Your task to perform on an android device: Go to settings Image 0: 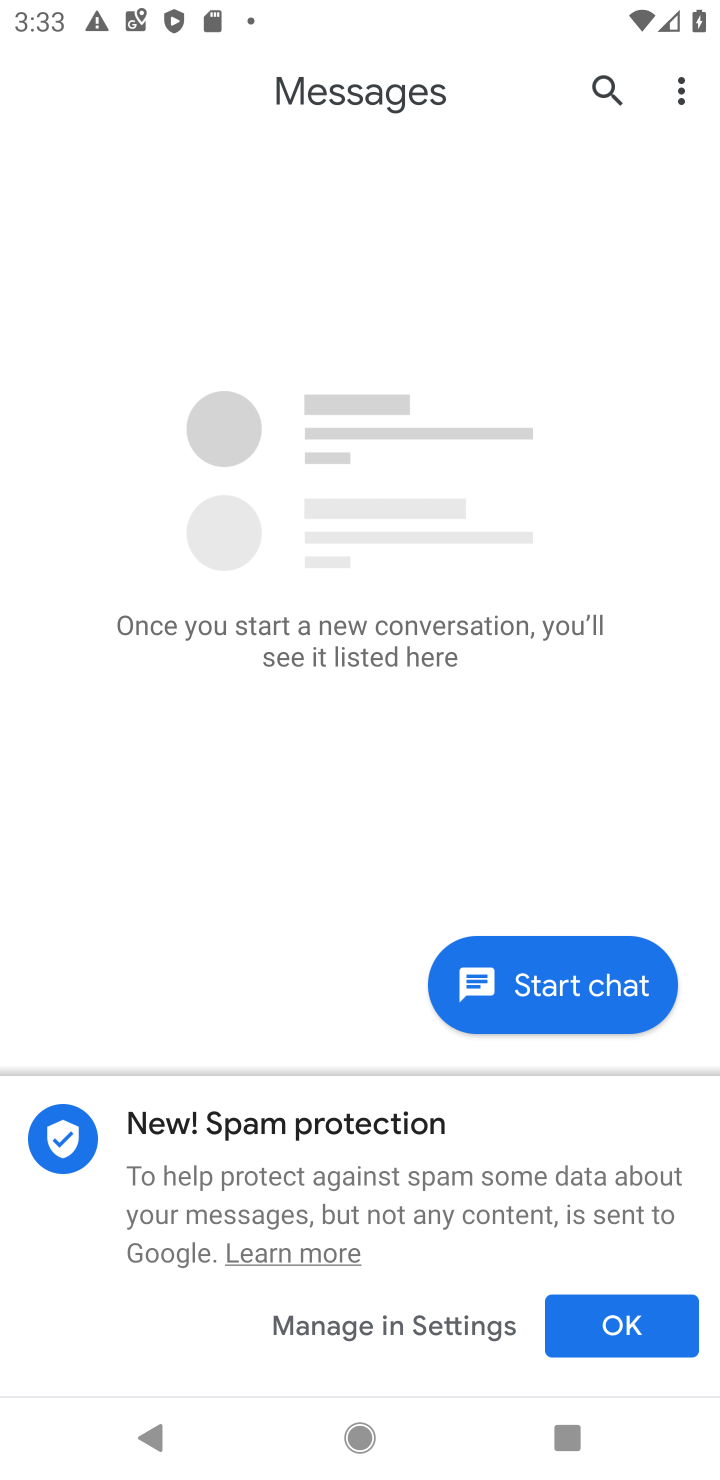
Step 0: press home button
Your task to perform on an android device: Go to settings Image 1: 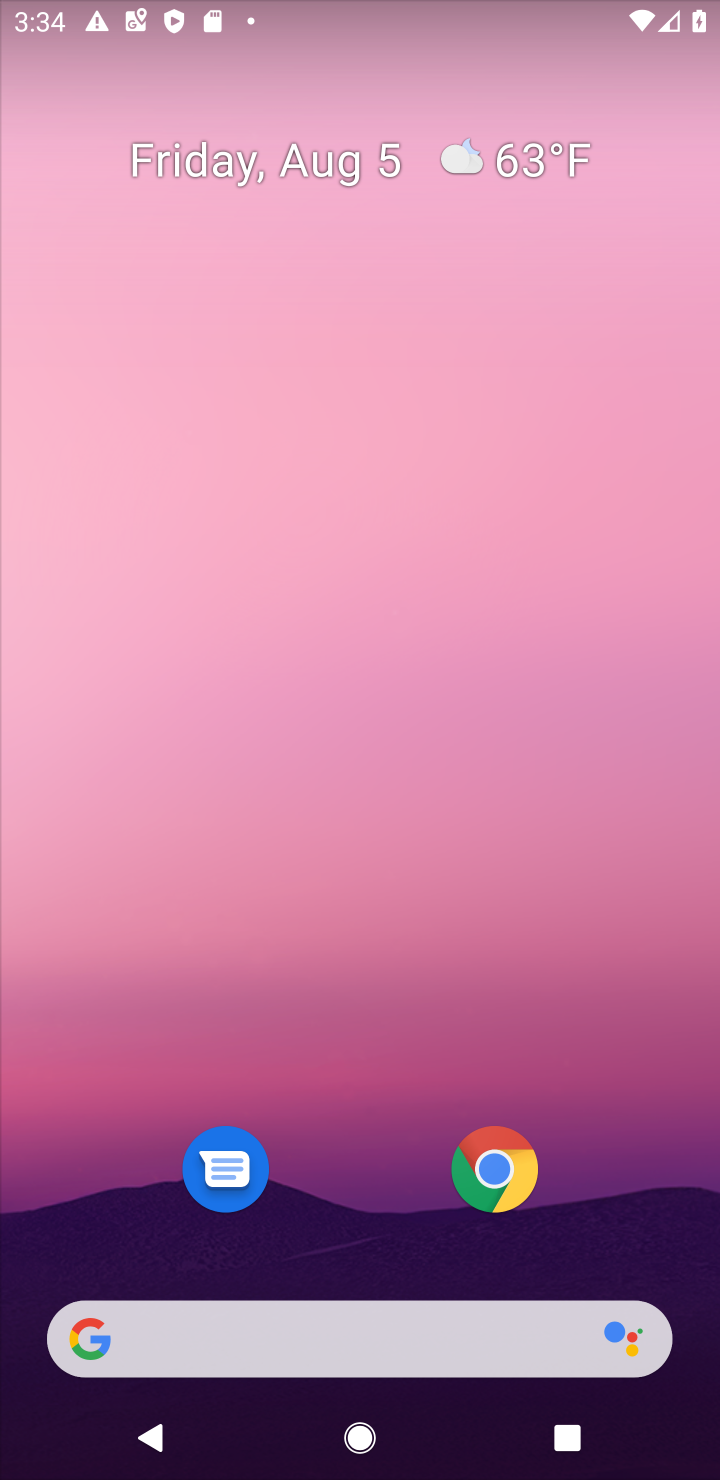
Step 1: drag from (699, 1410) to (362, 58)
Your task to perform on an android device: Go to settings Image 2: 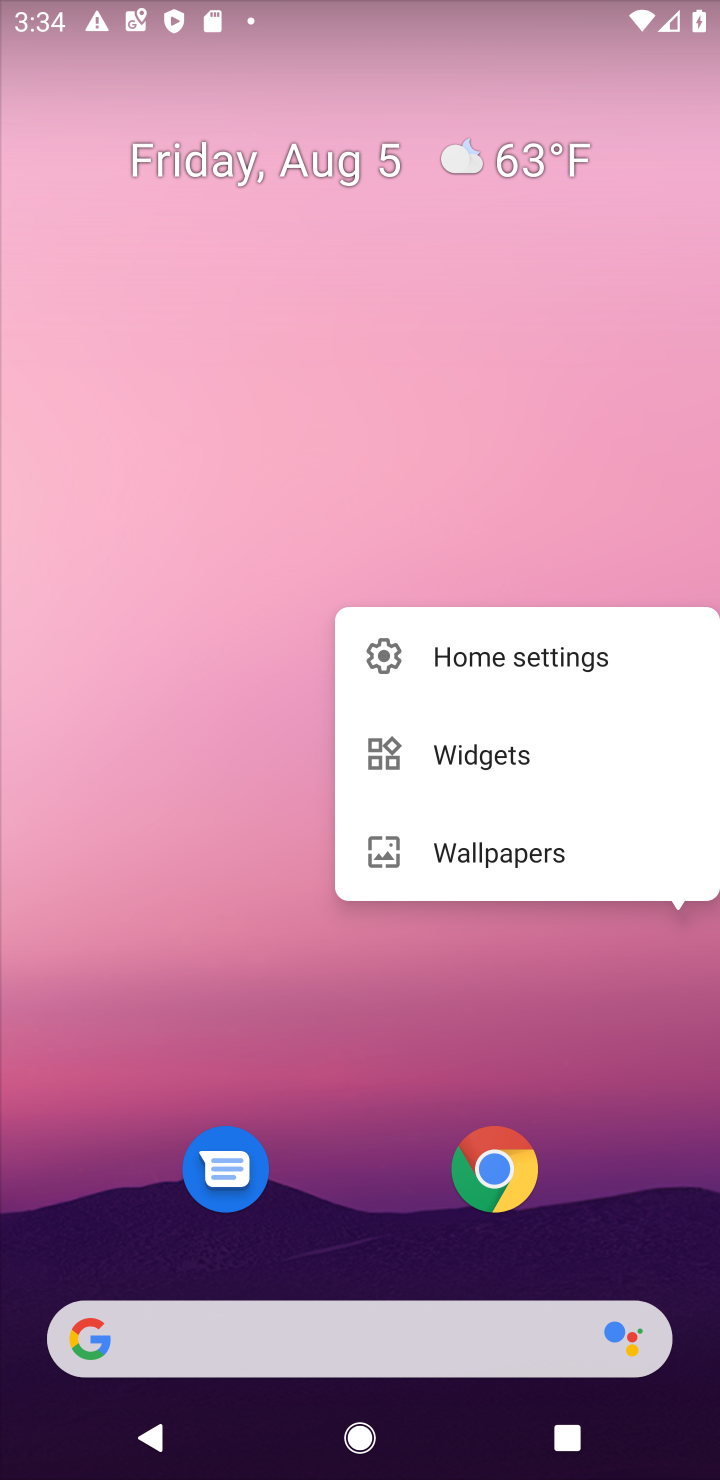
Step 2: click (640, 1049)
Your task to perform on an android device: Go to settings Image 3: 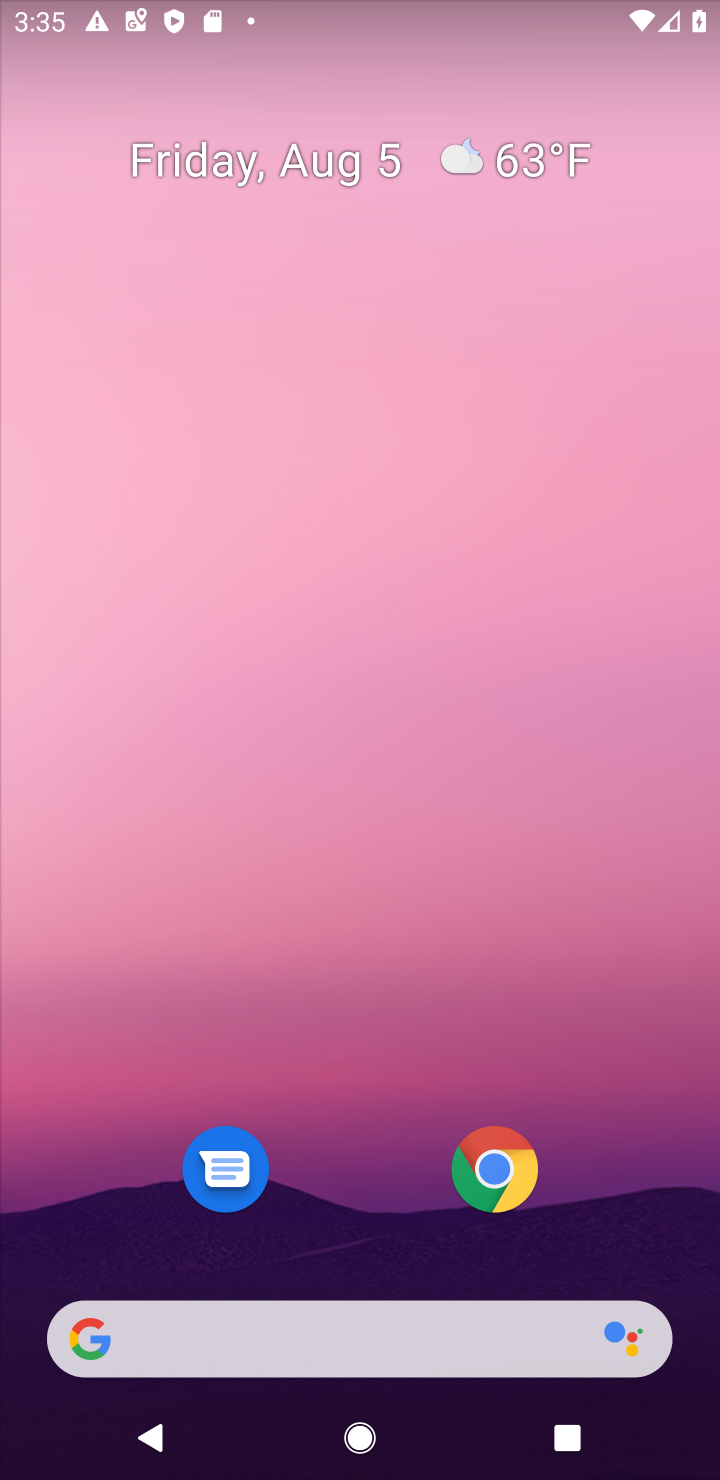
Step 3: drag from (694, 1433) to (387, 446)
Your task to perform on an android device: Go to settings Image 4: 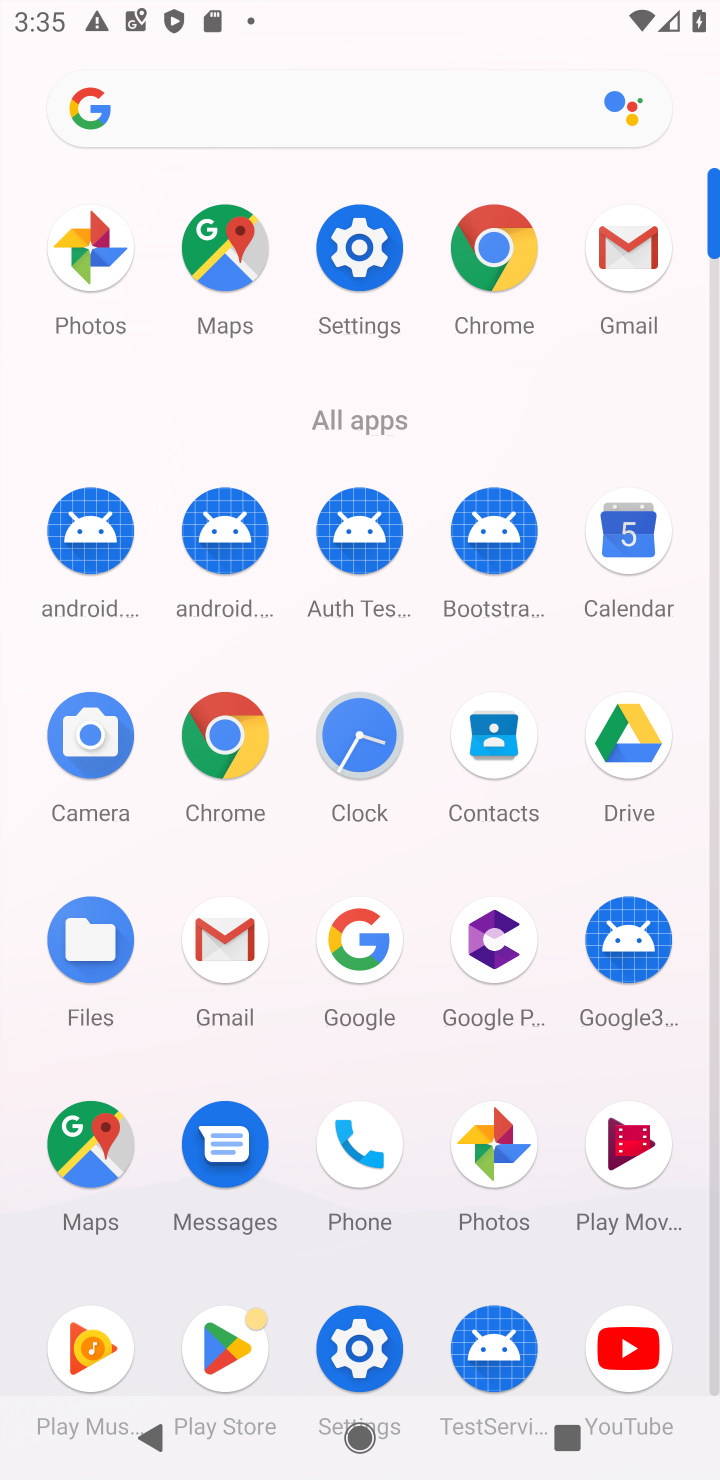
Step 4: click (349, 245)
Your task to perform on an android device: Go to settings Image 5: 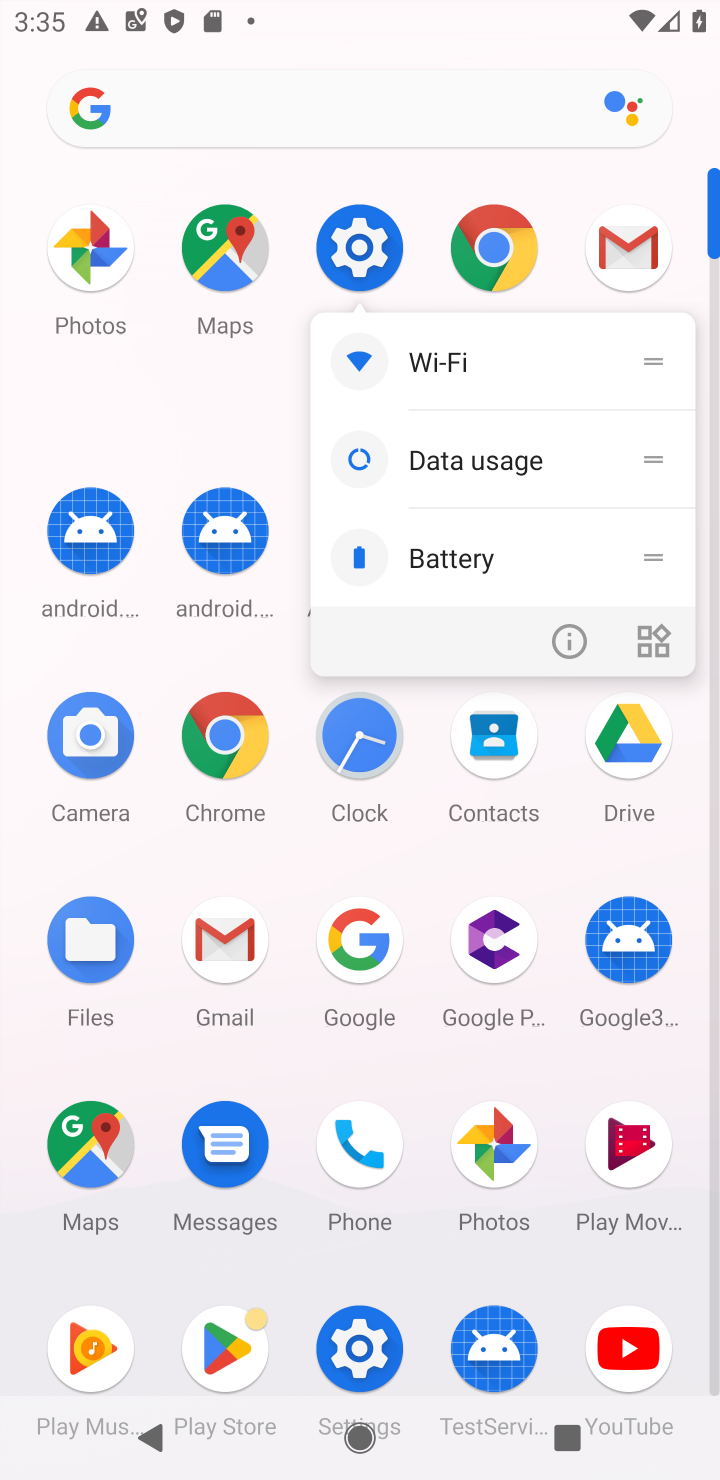
Step 5: click (341, 213)
Your task to perform on an android device: Go to settings Image 6: 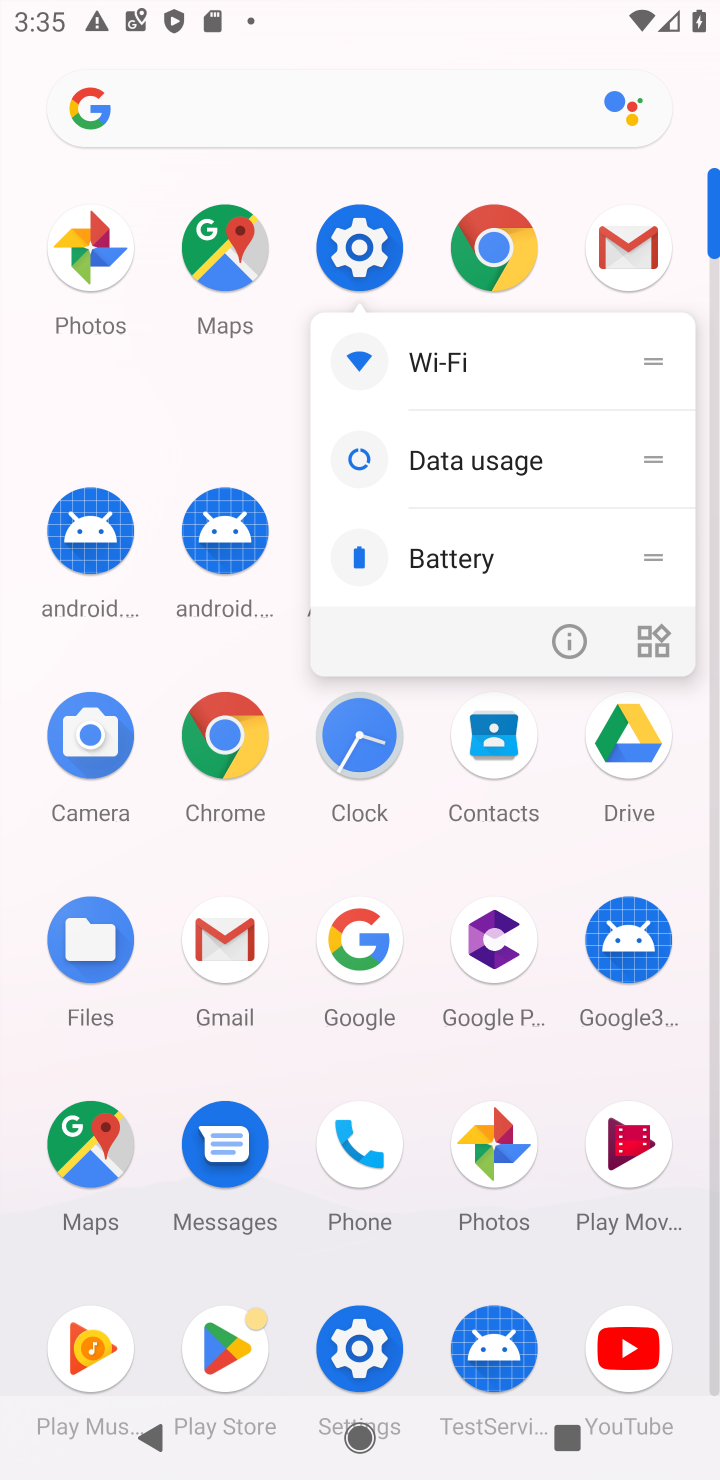
Step 6: click (343, 246)
Your task to perform on an android device: Go to settings Image 7: 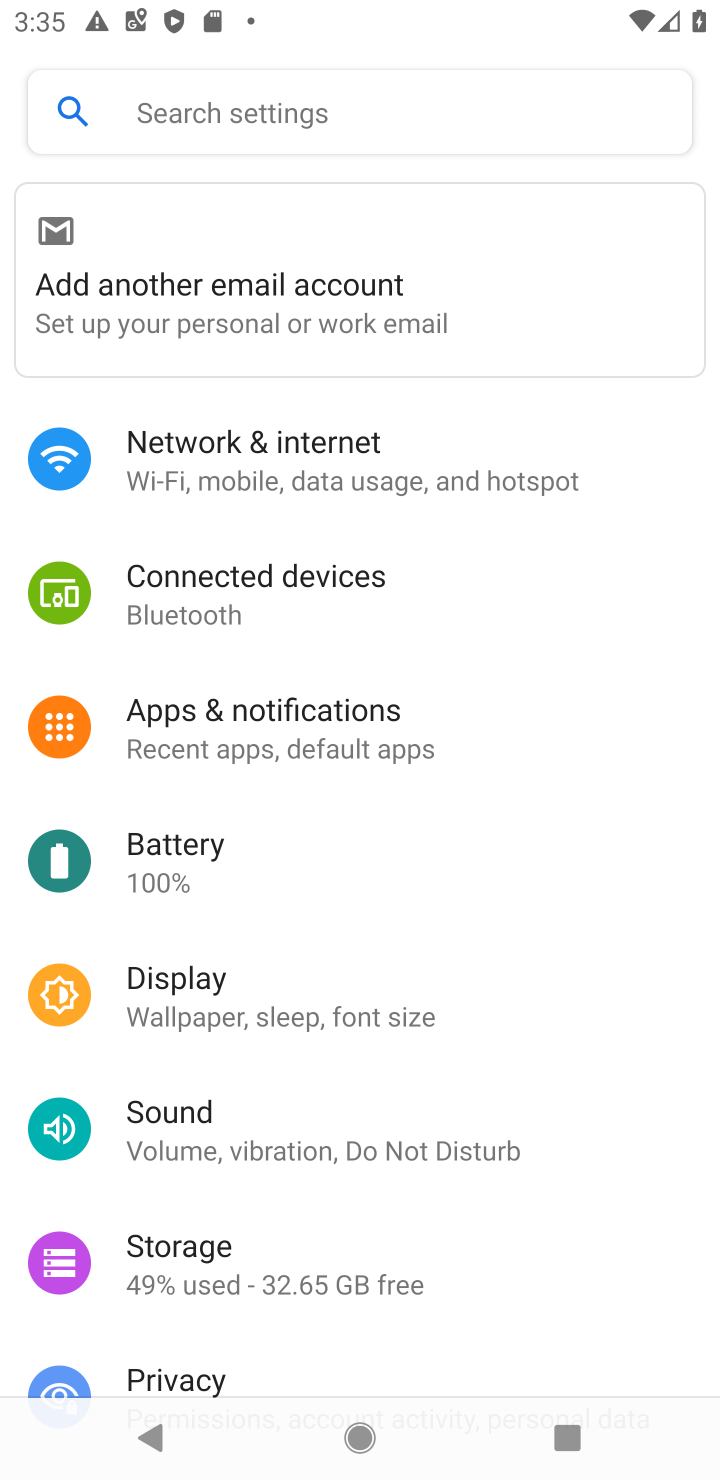
Step 7: task complete